Your task to perform on an android device: manage bookmarks in the chrome app Image 0: 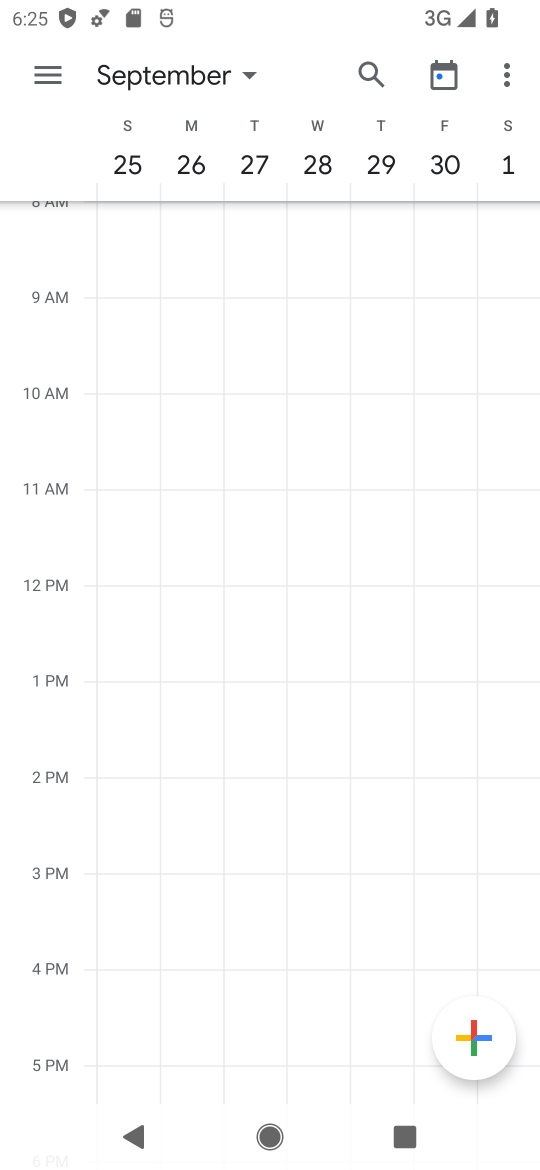
Step 0: press home button
Your task to perform on an android device: manage bookmarks in the chrome app Image 1: 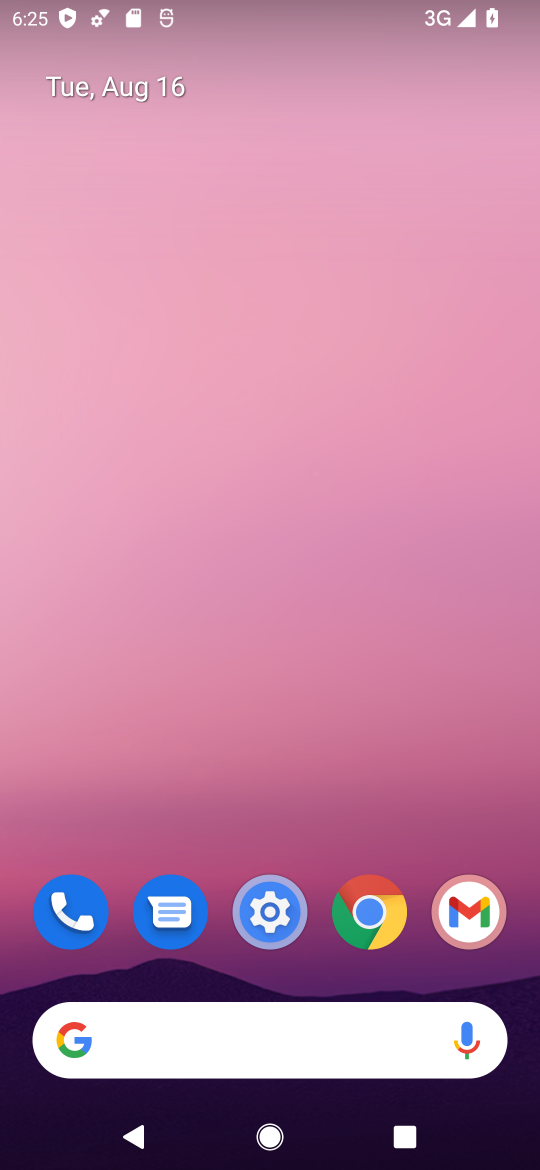
Step 1: click (369, 909)
Your task to perform on an android device: manage bookmarks in the chrome app Image 2: 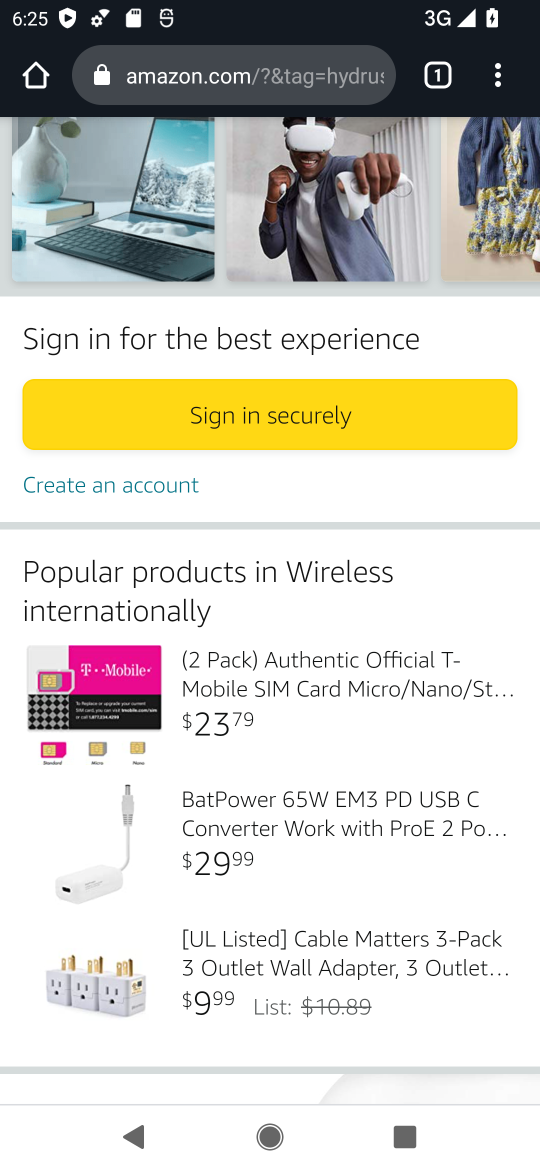
Step 2: click (495, 88)
Your task to perform on an android device: manage bookmarks in the chrome app Image 3: 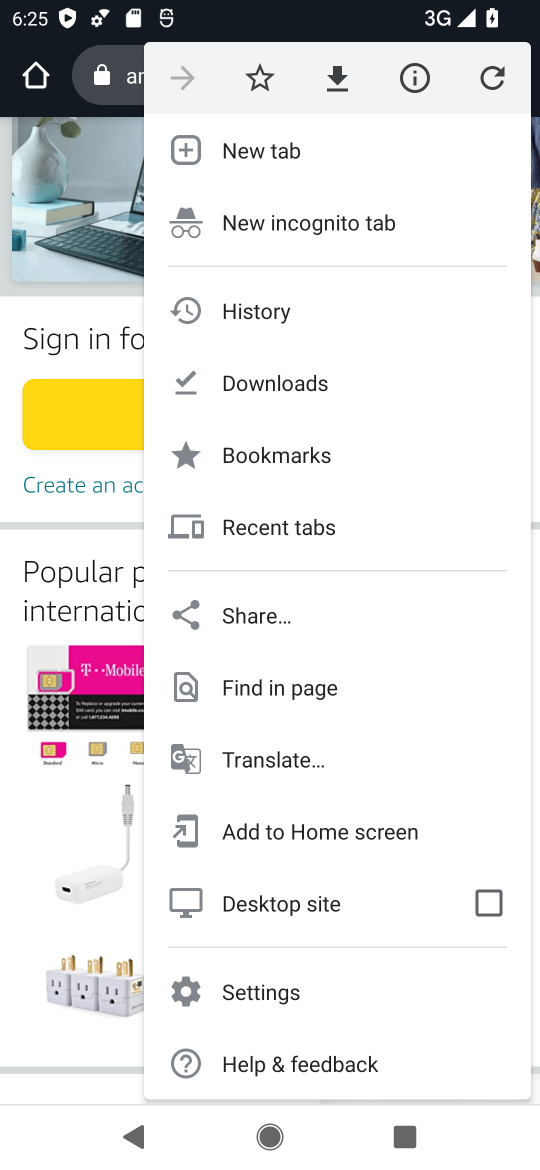
Step 3: click (263, 450)
Your task to perform on an android device: manage bookmarks in the chrome app Image 4: 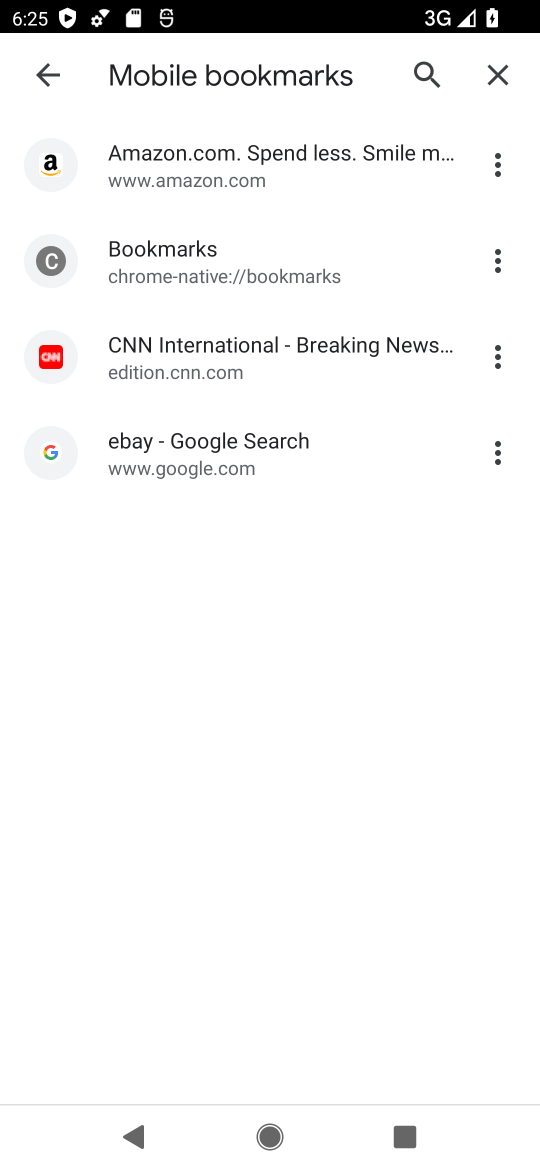
Step 4: click (151, 353)
Your task to perform on an android device: manage bookmarks in the chrome app Image 5: 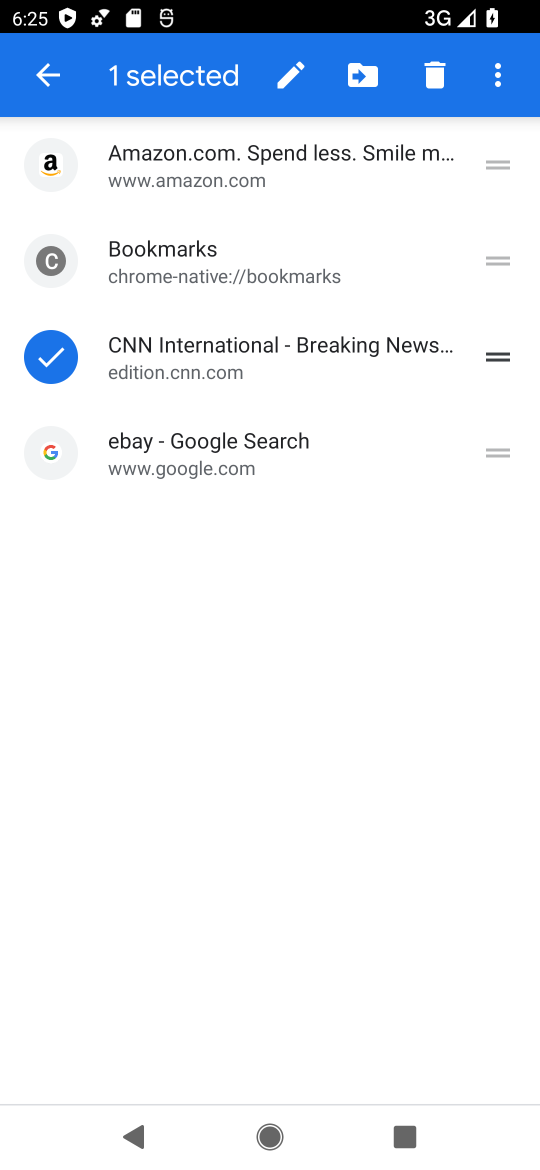
Step 5: click (355, 73)
Your task to perform on an android device: manage bookmarks in the chrome app Image 6: 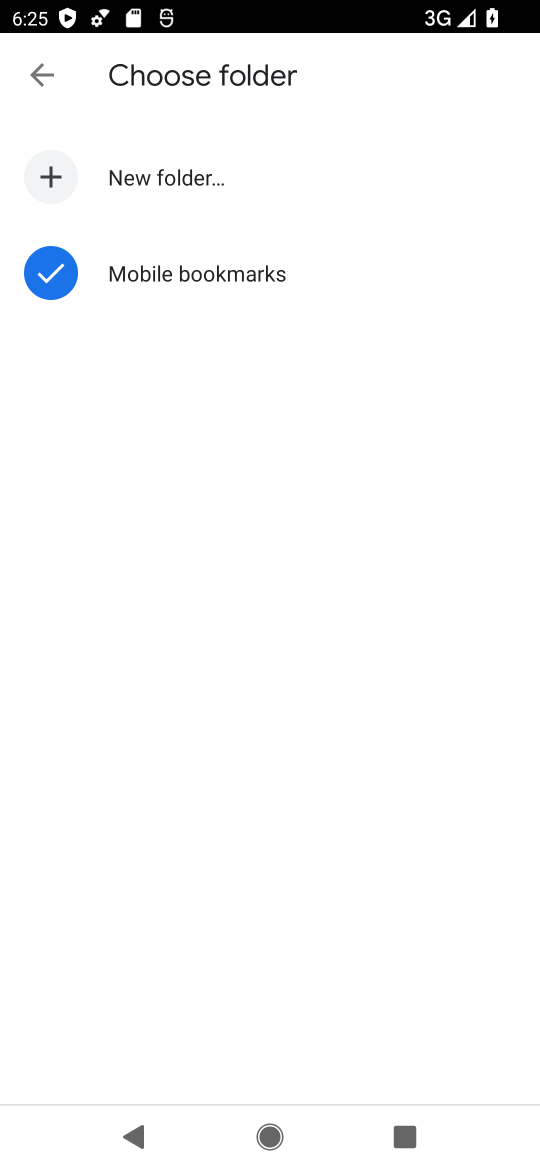
Step 6: click (51, 166)
Your task to perform on an android device: manage bookmarks in the chrome app Image 7: 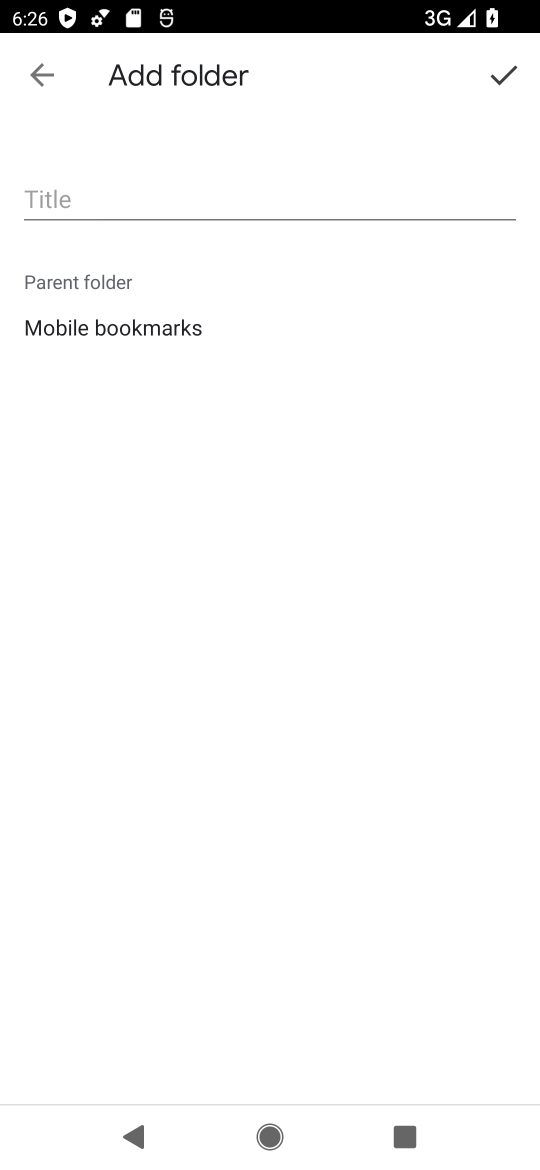
Step 7: click (124, 201)
Your task to perform on an android device: manage bookmarks in the chrome app Image 8: 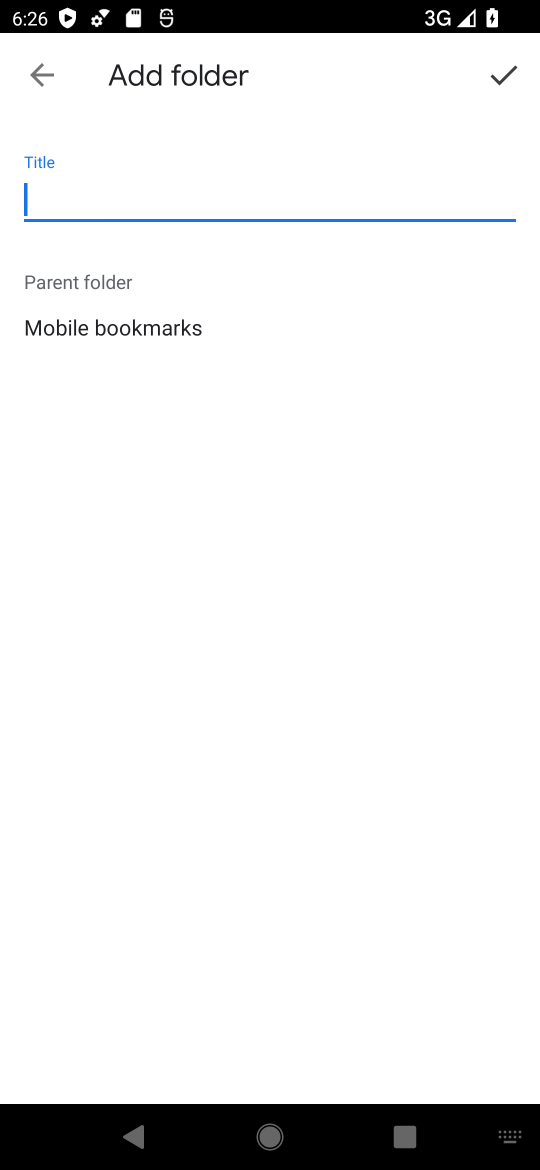
Step 8: type "tvf"
Your task to perform on an android device: manage bookmarks in the chrome app Image 9: 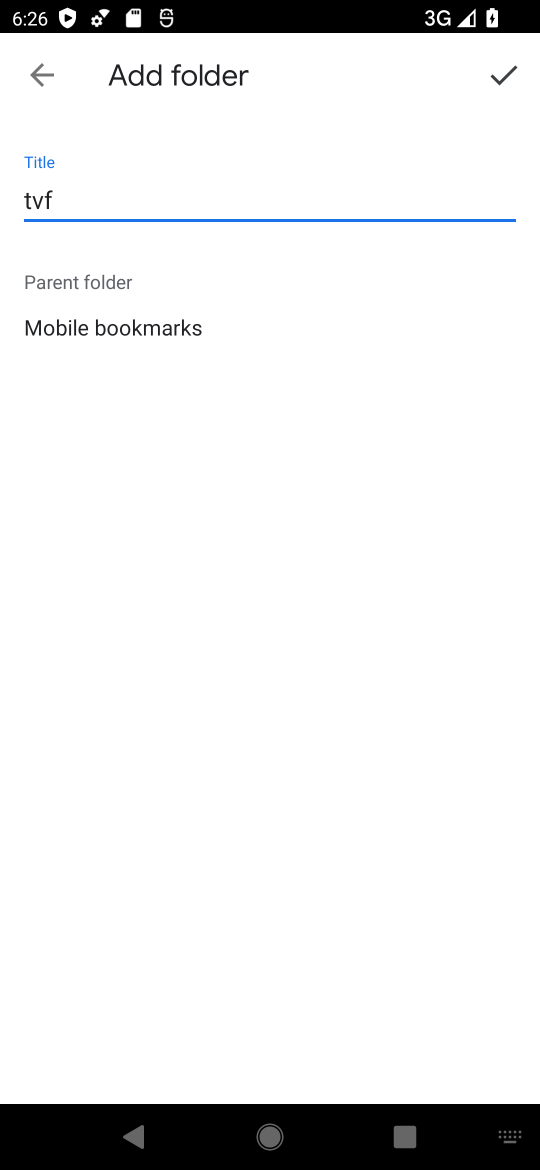
Step 9: click (500, 70)
Your task to perform on an android device: manage bookmarks in the chrome app Image 10: 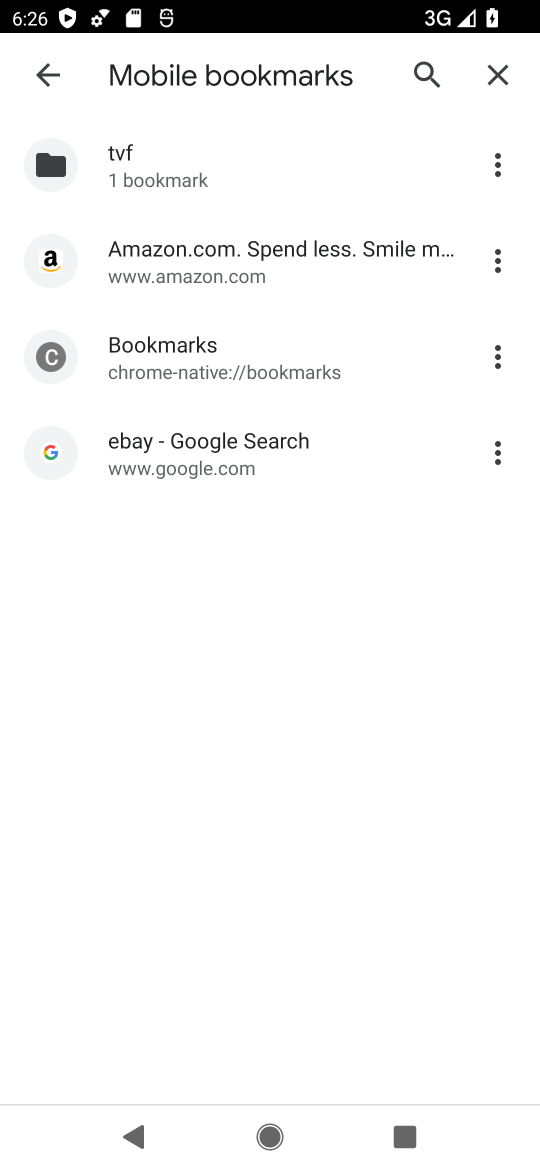
Step 10: task complete